Your task to perform on an android device: Open eBay Image 0: 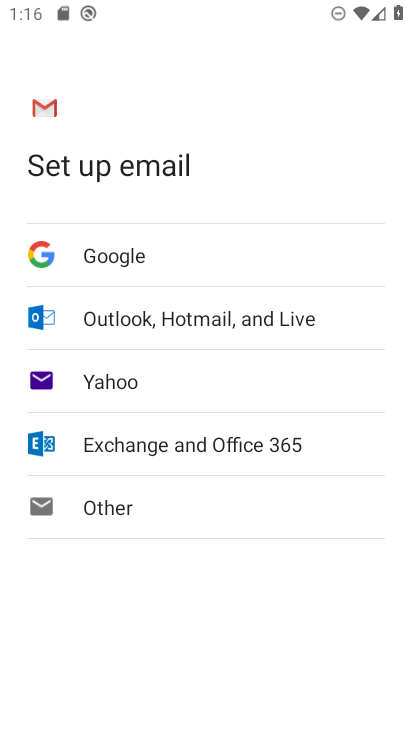
Step 0: press home button
Your task to perform on an android device: Open eBay Image 1: 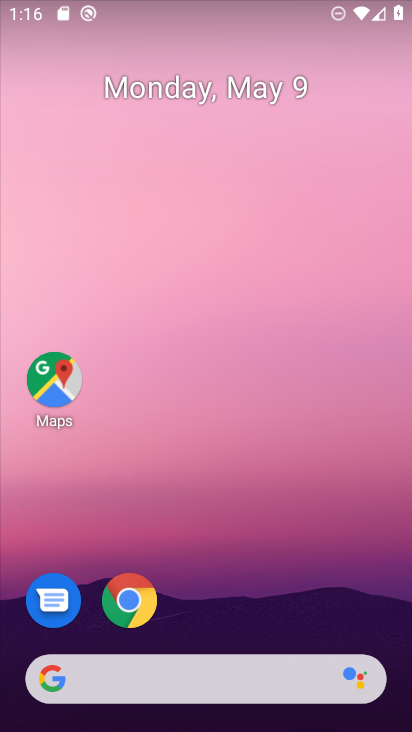
Step 1: click (122, 613)
Your task to perform on an android device: Open eBay Image 2: 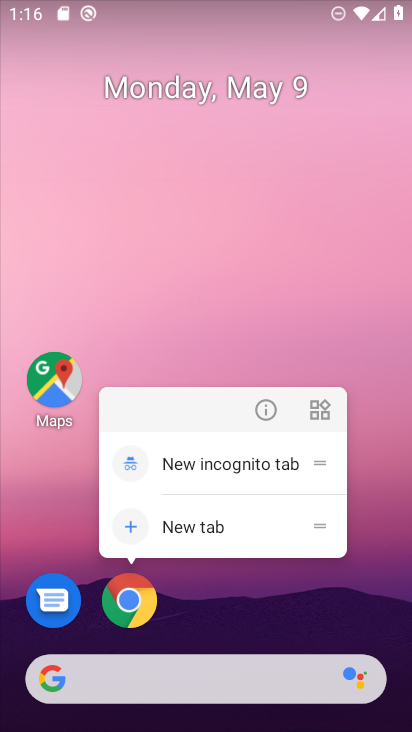
Step 2: click (129, 597)
Your task to perform on an android device: Open eBay Image 3: 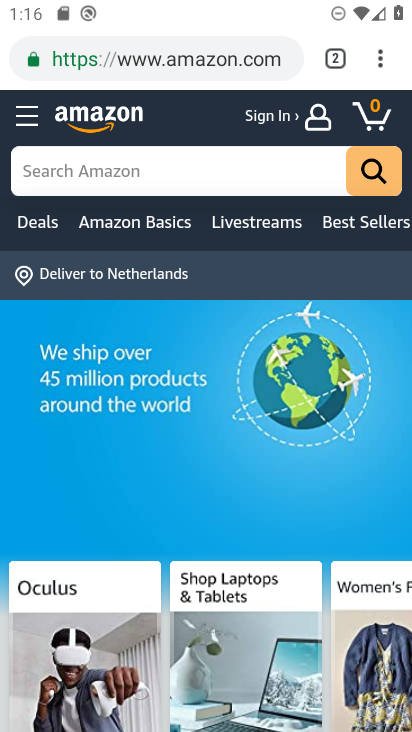
Step 3: drag from (377, 64) to (300, 114)
Your task to perform on an android device: Open eBay Image 4: 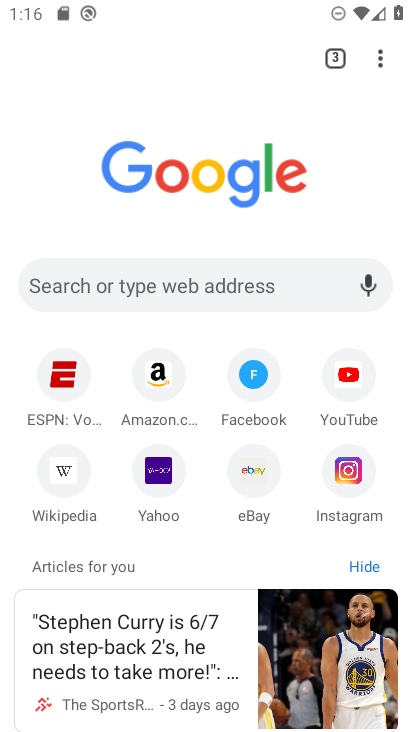
Step 4: click (255, 485)
Your task to perform on an android device: Open eBay Image 5: 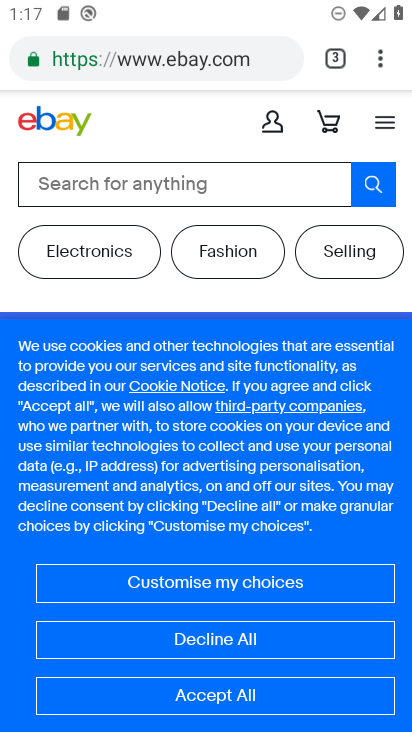
Step 5: task complete